Your task to perform on an android device: Open calendar and show me the first week of next month Image 0: 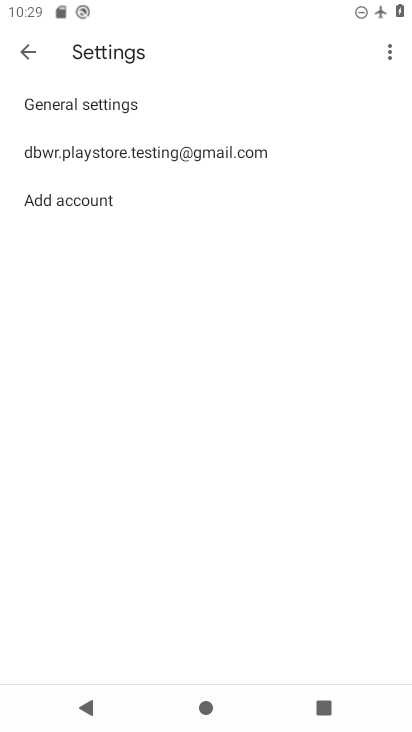
Step 0: press home button
Your task to perform on an android device: Open calendar and show me the first week of next month Image 1: 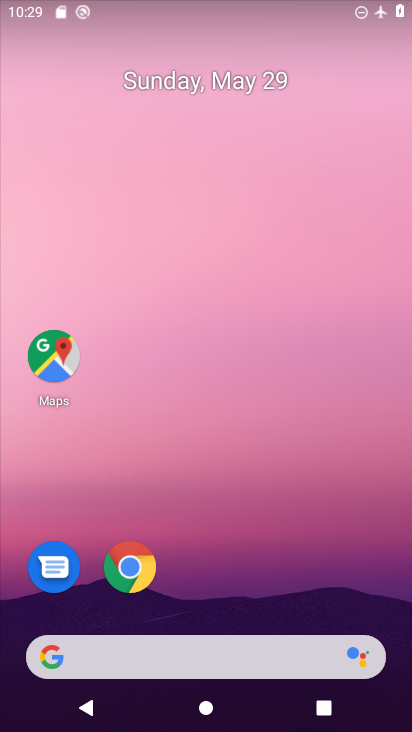
Step 1: drag from (355, 598) to (318, 82)
Your task to perform on an android device: Open calendar and show me the first week of next month Image 2: 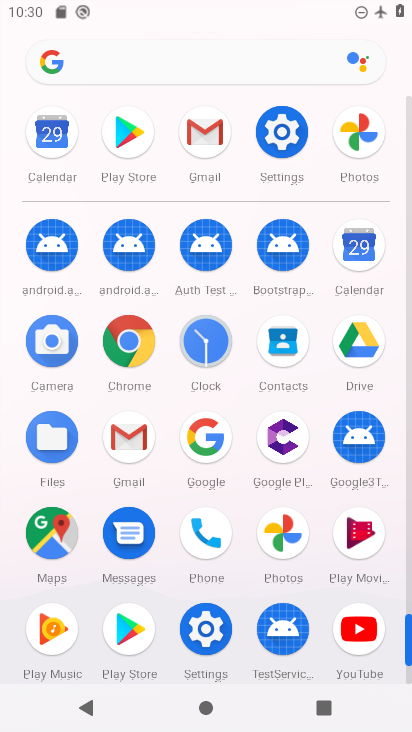
Step 2: click (358, 242)
Your task to perform on an android device: Open calendar and show me the first week of next month Image 3: 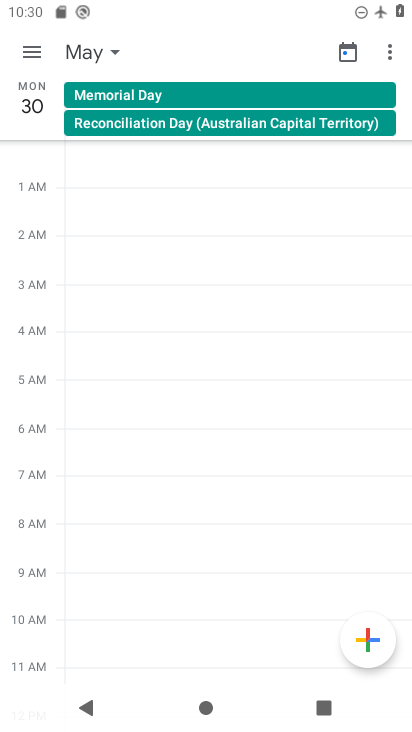
Step 3: click (30, 58)
Your task to perform on an android device: Open calendar and show me the first week of next month Image 4: 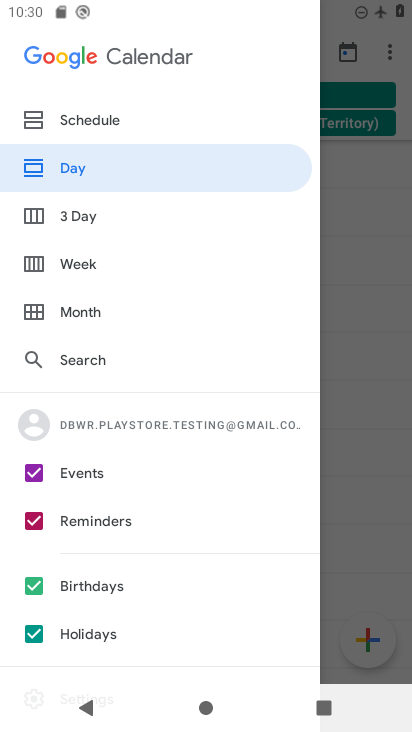
Step 4: click (75, 263)
Your task to perform on an android device: Open calendar and show me the first week of next month Image 5: 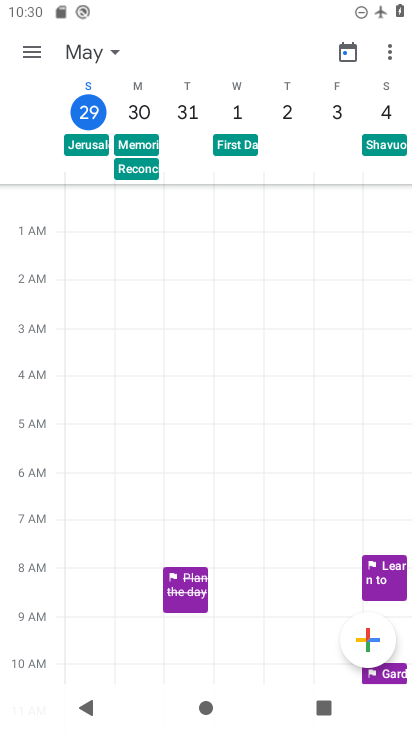
Step 5: click (112, 49)
Your task to perform on an android device: Open calendar and show me the first week of next month Image 6: 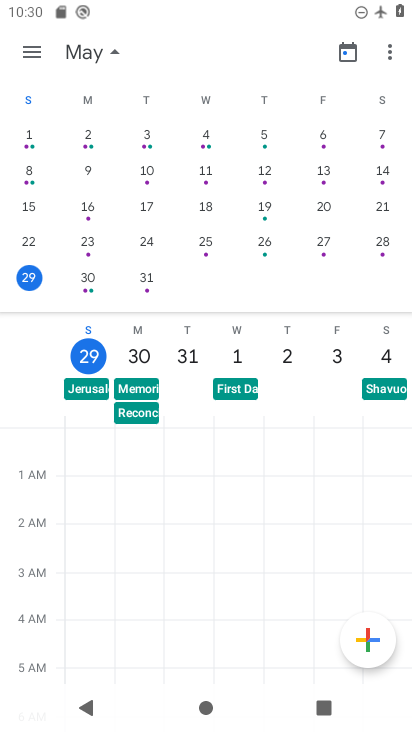
Step 6: drag from (366, 173) to (25, 166)
Your task to perform on an android device: Open calendar and show me the first week of next month Image 7: 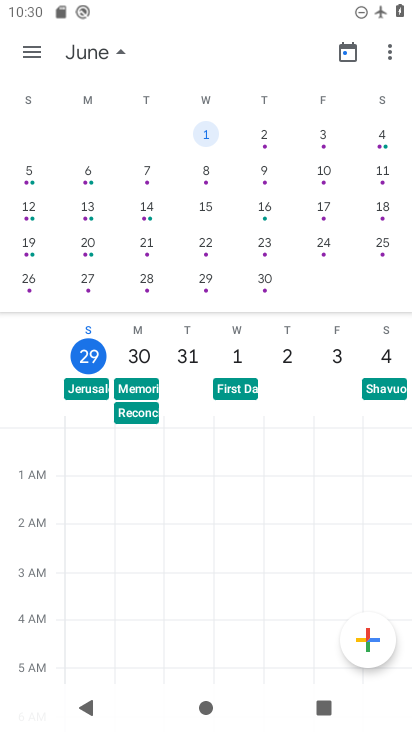
Step 7: click (24, 170)
Your task to perform on an android device: Open calendar and show me the first week of next month Image 8: 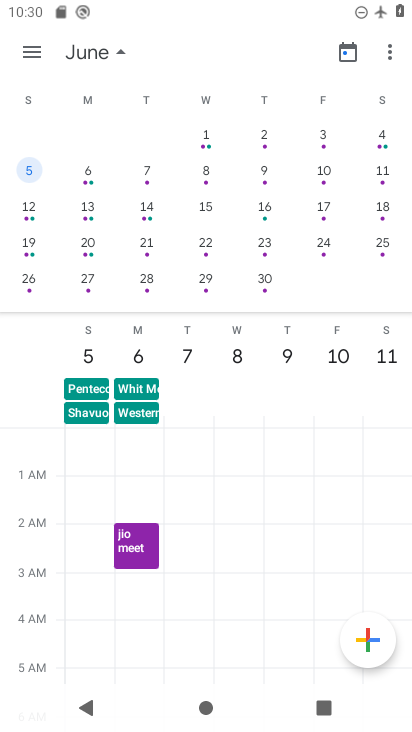
Step 8: task complete